Your task to perform on an android device: install app "LinkedIn" Image 0: 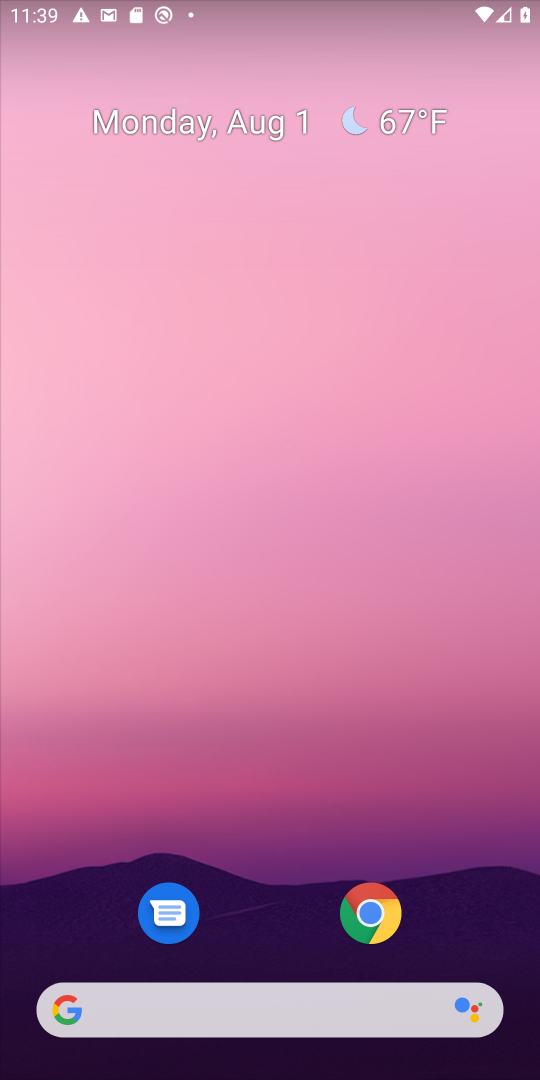
Step 0: drag from (518, 711) to (494, 8)
Your task to perform on an android device: install app "LinkedIn" Image 1: 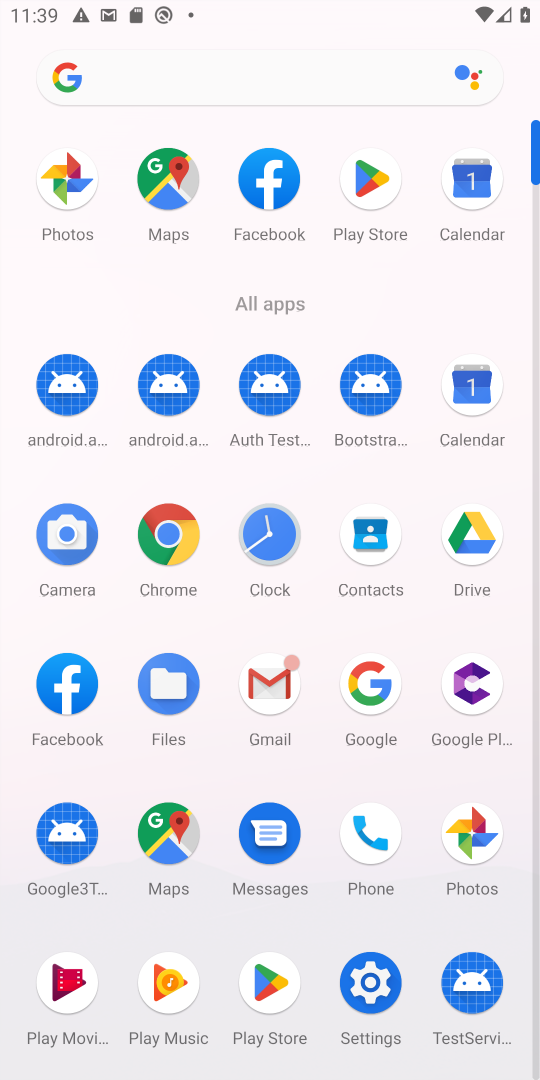
Step 1: click (355, 172)
Your task to perform on an android device: install app "LinkedIn" Image 2: 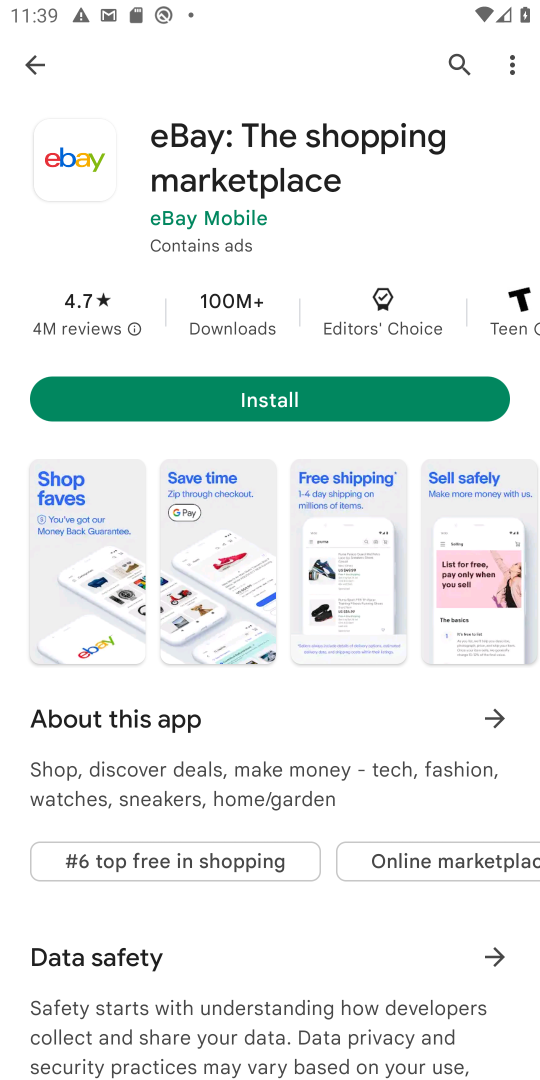
Step 2: click (464, 71)
Your task to perform on an android device: install app "LinkedIn" Image 3: 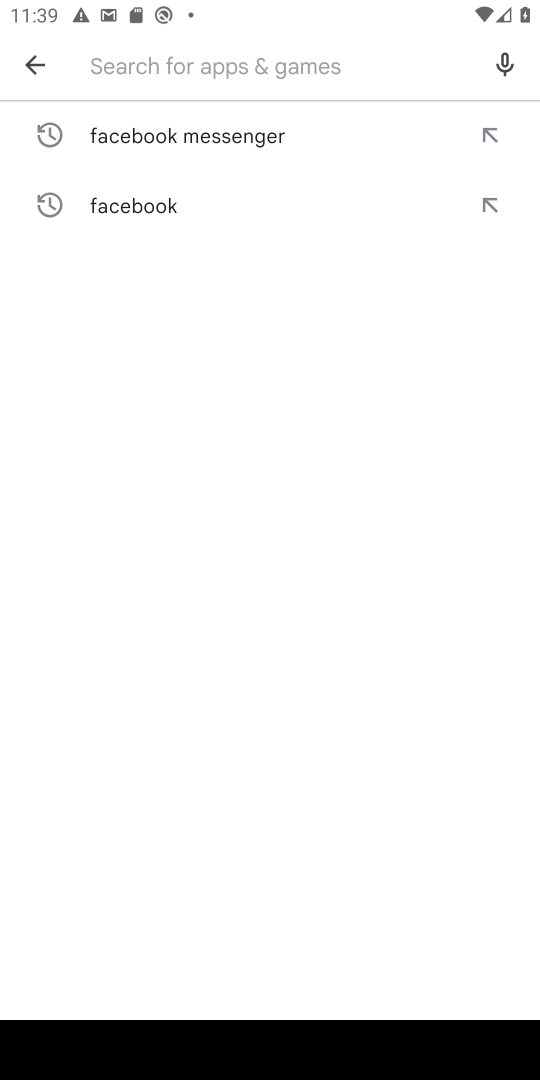
Step 3: type "LinkedIn"
Your task to perform on an android device: install app "LinkedIn" Image 4: 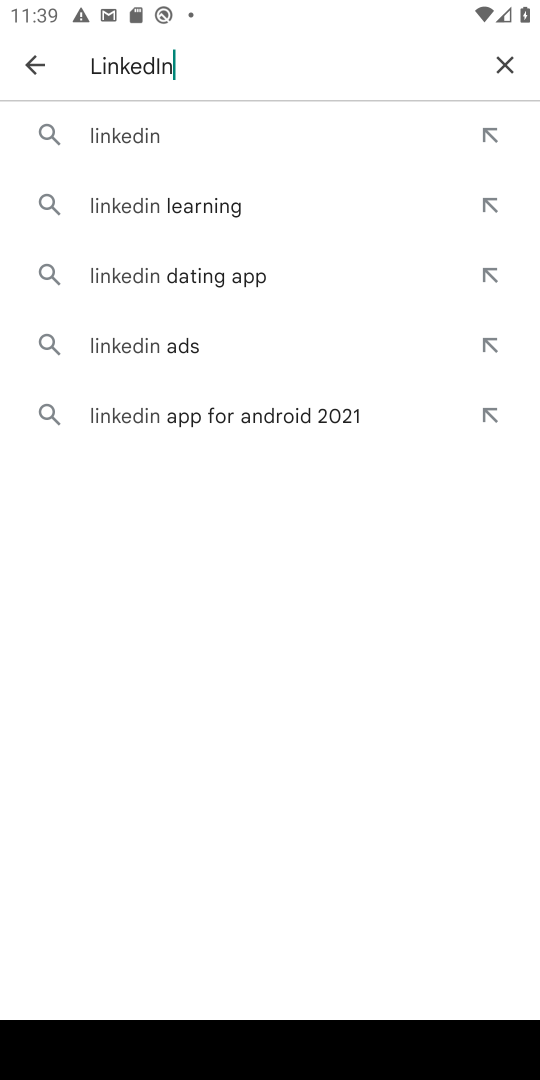
Step 4: click (101, 128)
Your task to perform on an android device: install app "LinkedIn" Image 5: 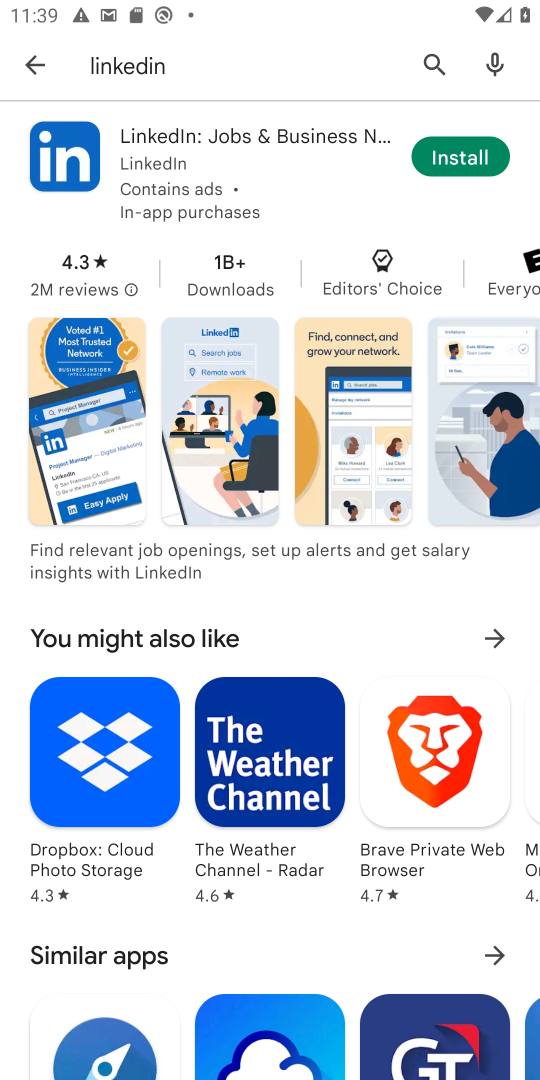
Step 5: click (468, 158)
Your task to perform on an android device: install app "LinkedIn" Image 6: 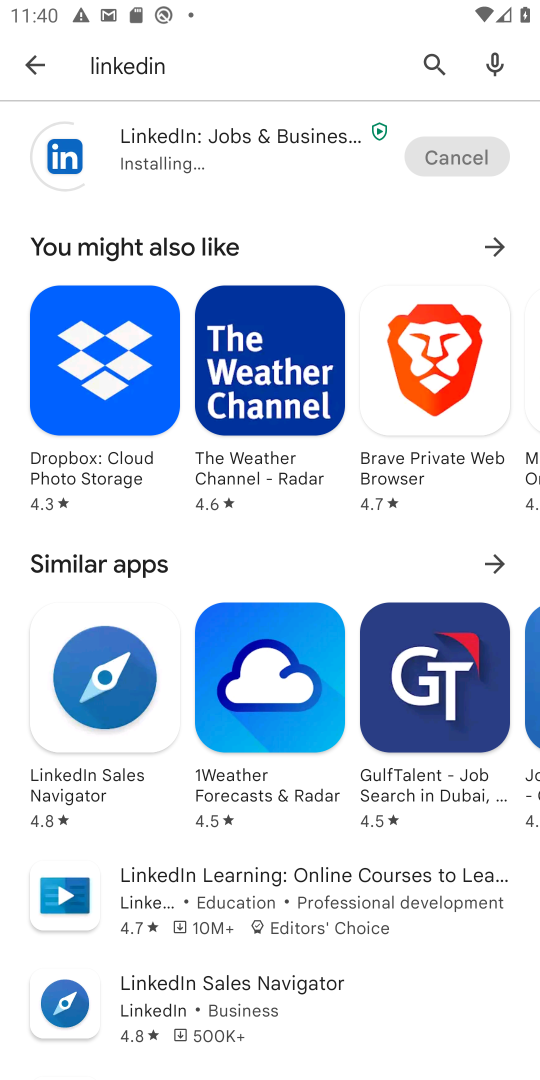
Step 6: task complete